Your task to perform on an android device: delete a single message in the gmail app Image 0: 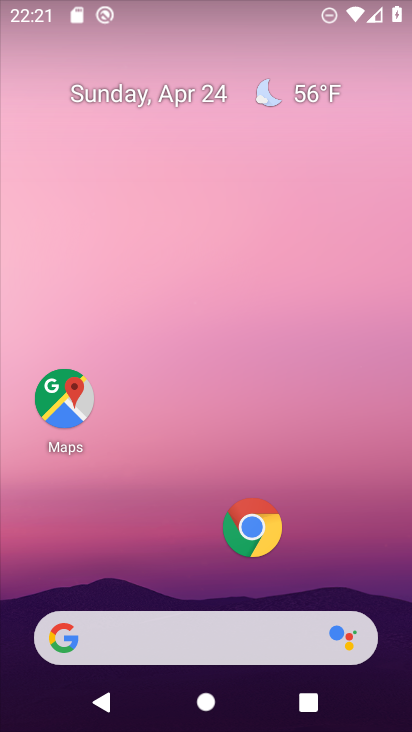
Step 0: drag from (180, 490) to (288, 13)
Your task to perform on an android device: delete a single message in the gmail app Image 1: 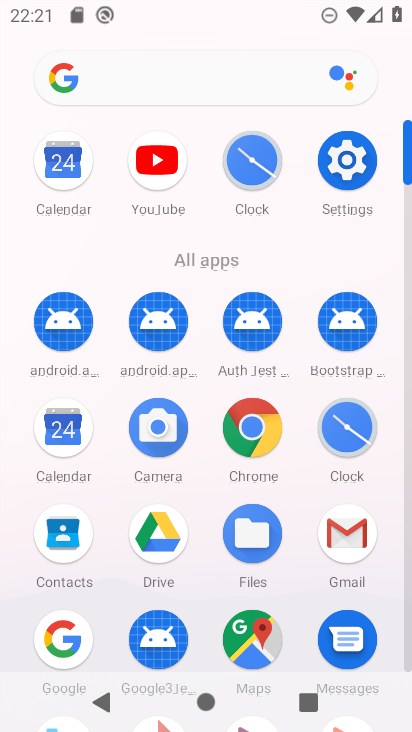
Step 1: click (351, 543)
Your task to perform on an android device: delete a single message in the gmail app Image 2: 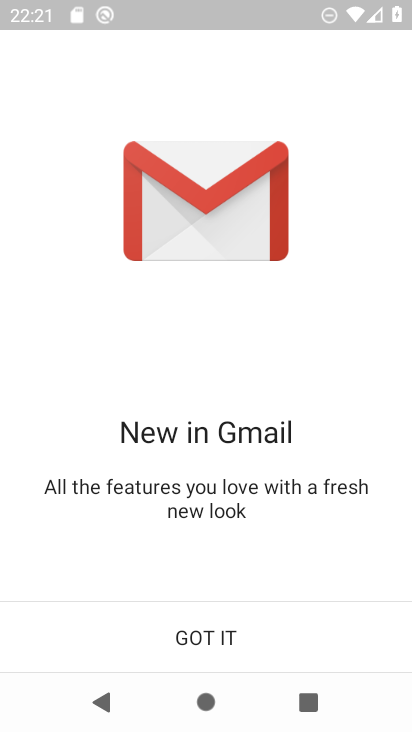
Step 2: click (231, 638)
Your task to perform on an android device: delete a single message in the gmail app Image 3: 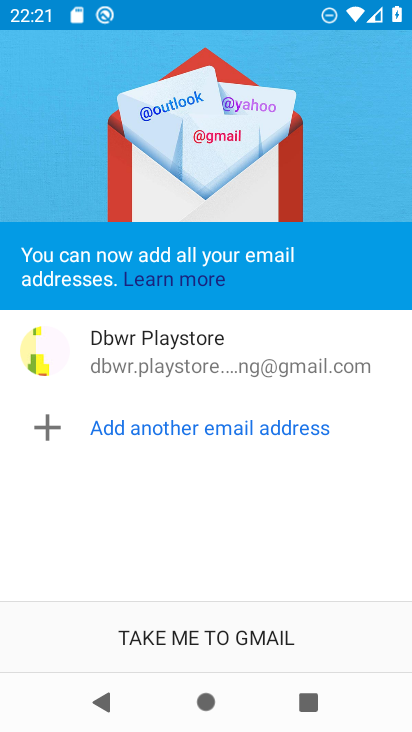
Step 3: click (231, 638)
Your task to perform on an android device: delete a single message in the gmail app Image 4: 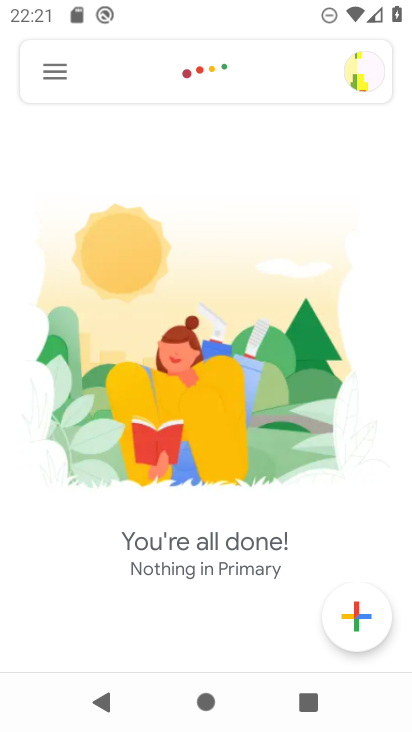
Step 4: click (50, 301)
Your task to perform on an android device: delete a single message in the gmail app Image 5: 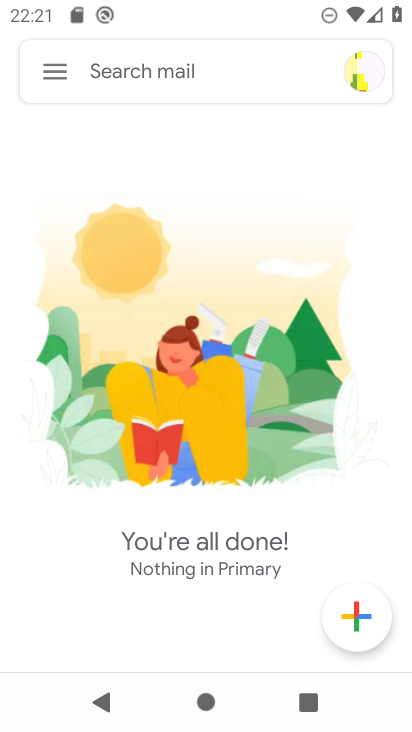
Step 5: click (52, 79)
Your task to perform on an android device: delete a single message in the gmail app Image 6: 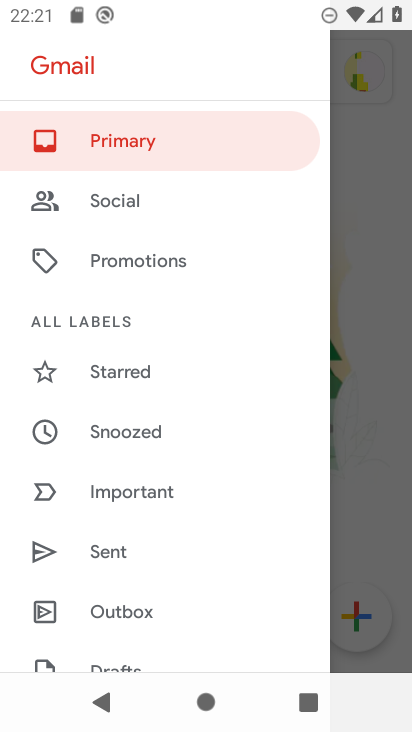
Step 6: drag from (129, 545) to (147, 305)
Your task to perform on an android device: delete a single message in the gmail app Image 7: 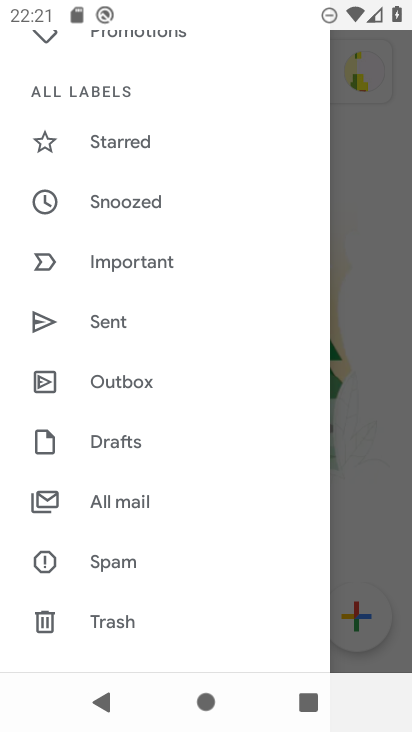
Step 7: click (117, 509)
Your task to perform on an android device: delete a single message in the gmail app Image 8: 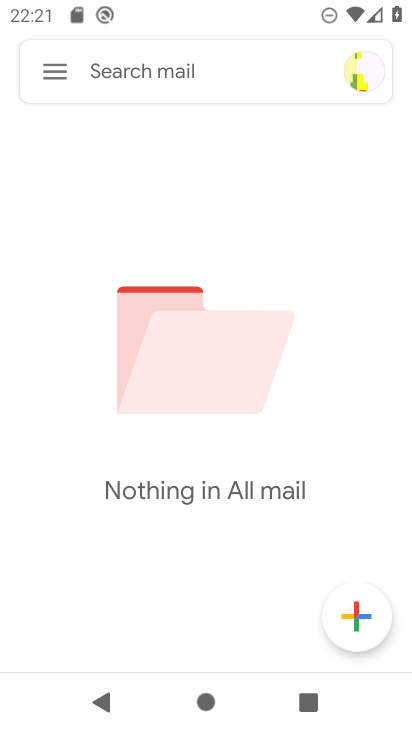
Step 8: task complete